Your task to perform on an android device: Open settings Image 0: 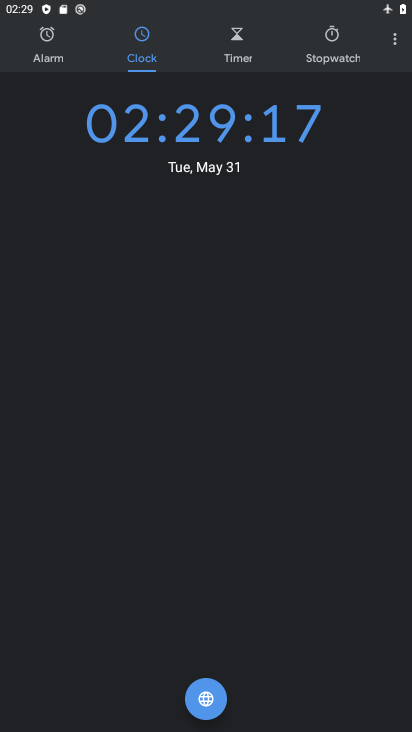
Step 0: press home button
Your task to perform on an android device: Open settings Image 1: 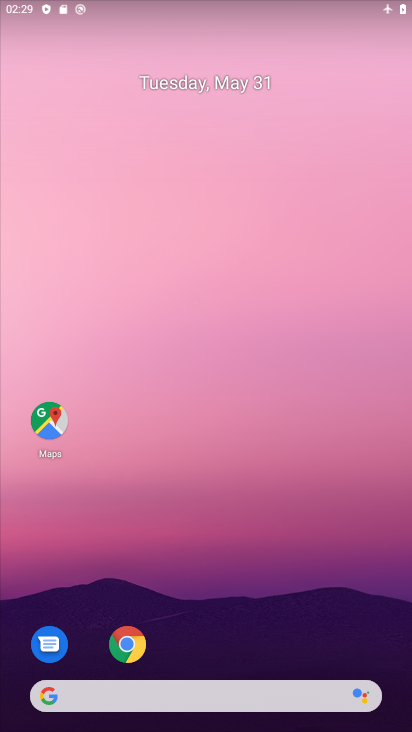
Step 1: drag from (319, 521) to (236, 0)
Your task to perform on an android device: Open settings Image 2: 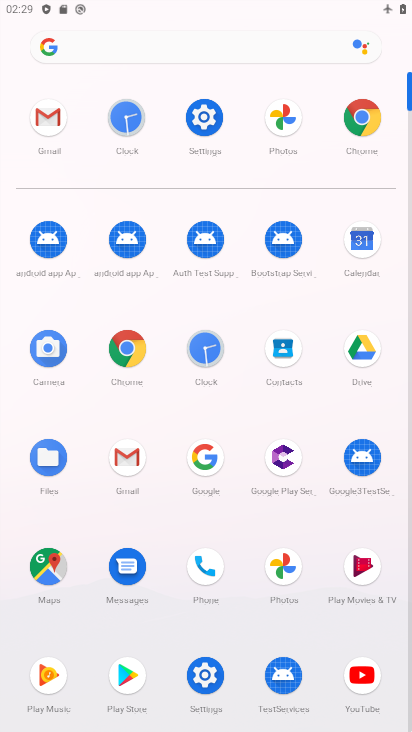
Step 2: click (218, 115)
Your task to perform on an android device: Open settings Image 3: 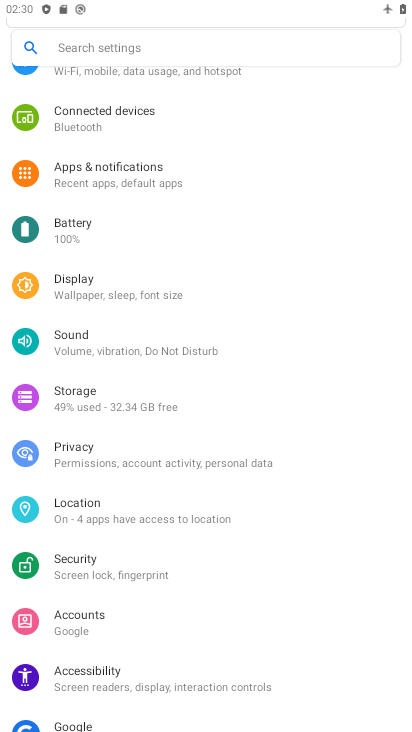
Step 3: task complete